Your task to perform on an android device: Open my contact list Image 0: 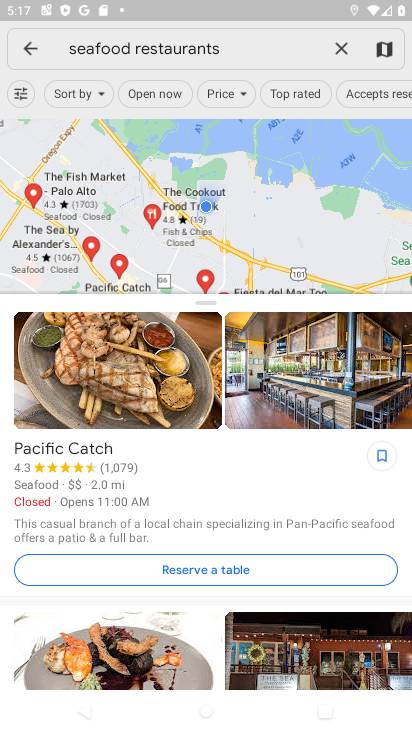
Step 0: press home button
Your task to perform on an android device: Open my contact list Image 1: 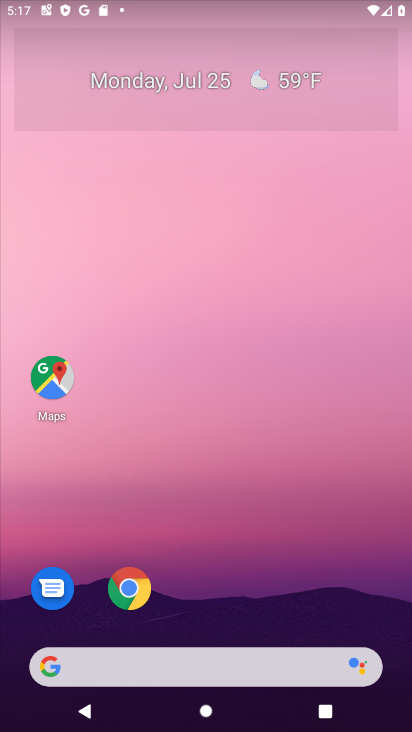
Step 1: drag from (268, 526) to (235, 221)
Your task to perform on an android device: Open my contact list Image 2: 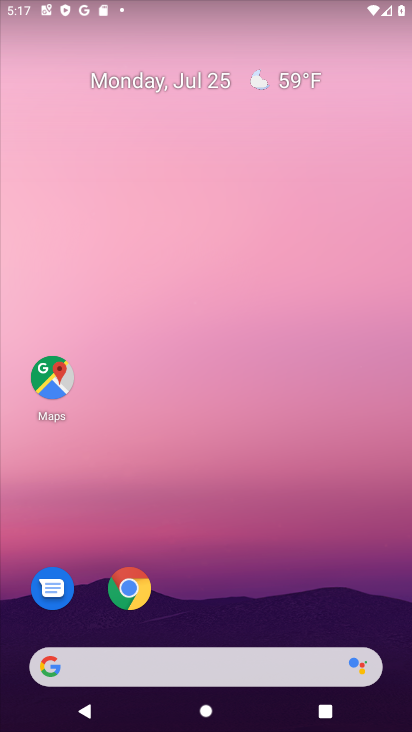
Step 2: drag from (288, 445) to (259, 106)
Your task to perform on an android device: Open my contact list Image 3: 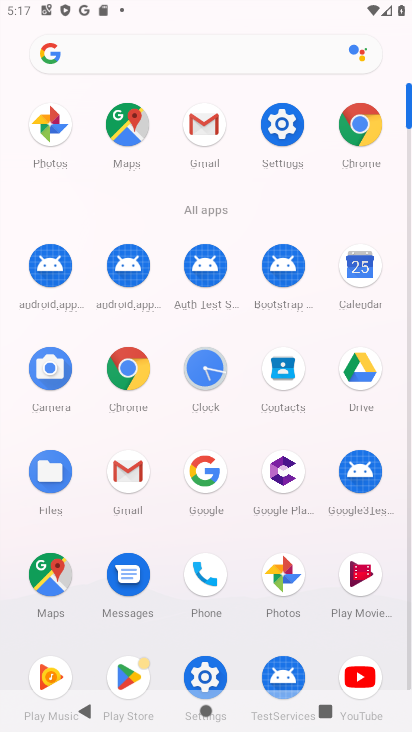
Step 3: click (286, 370)
Your task to perform on an android device: Open my contact list Image 4: 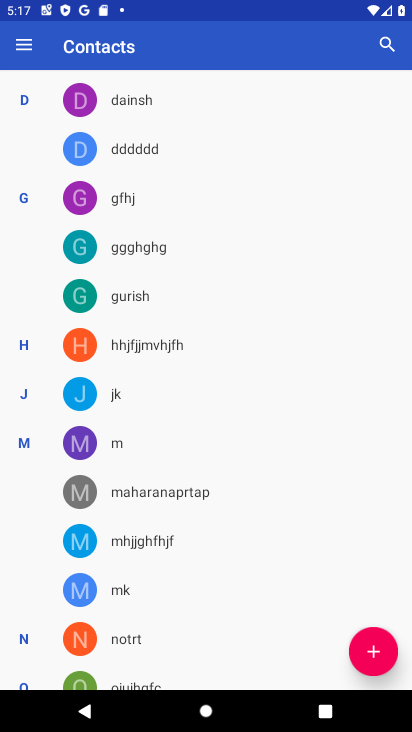
Step 4: task complete